Your task to perform on an android device: open app "Firefox Browser" (install if not already installed) Image 0: 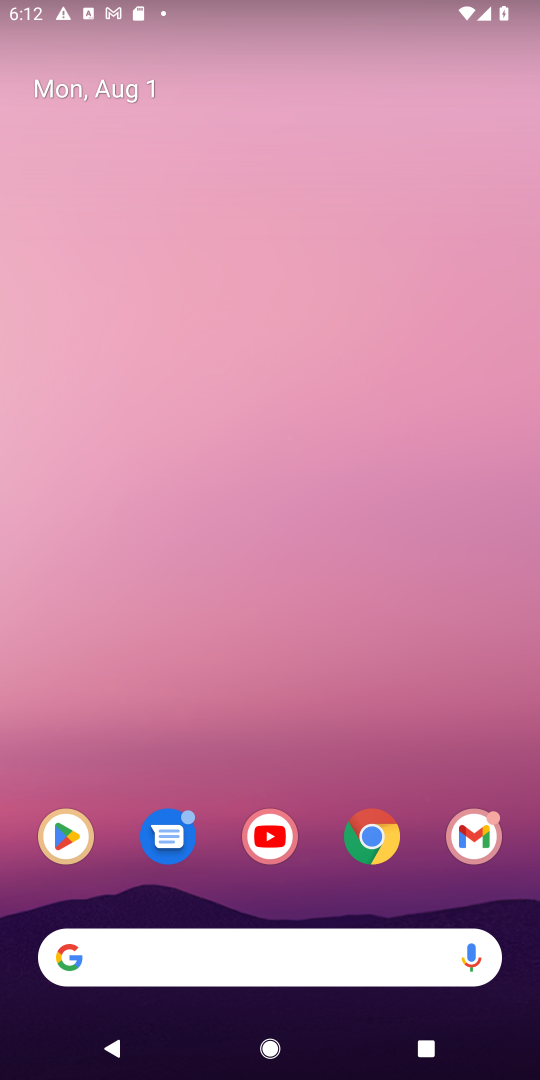
Step 0: press home button
Your task to perform on an android device: open app "Firefox Browser" (install if not already installed) Image 1: 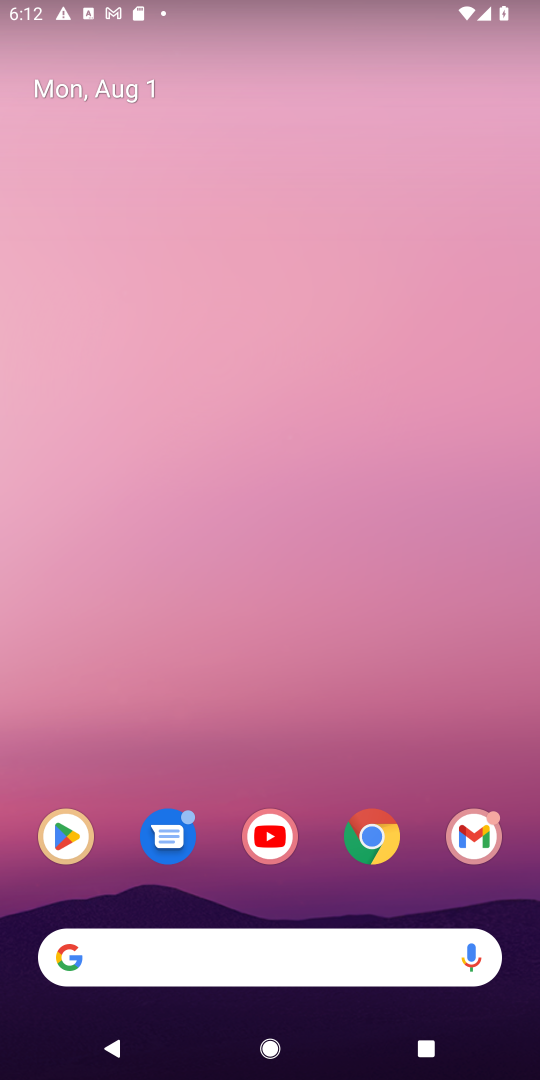
Step 1: click (68, 838)
Your task to perform on an android device: open app "Firefox Browser" (install if not already installed) Image 2: 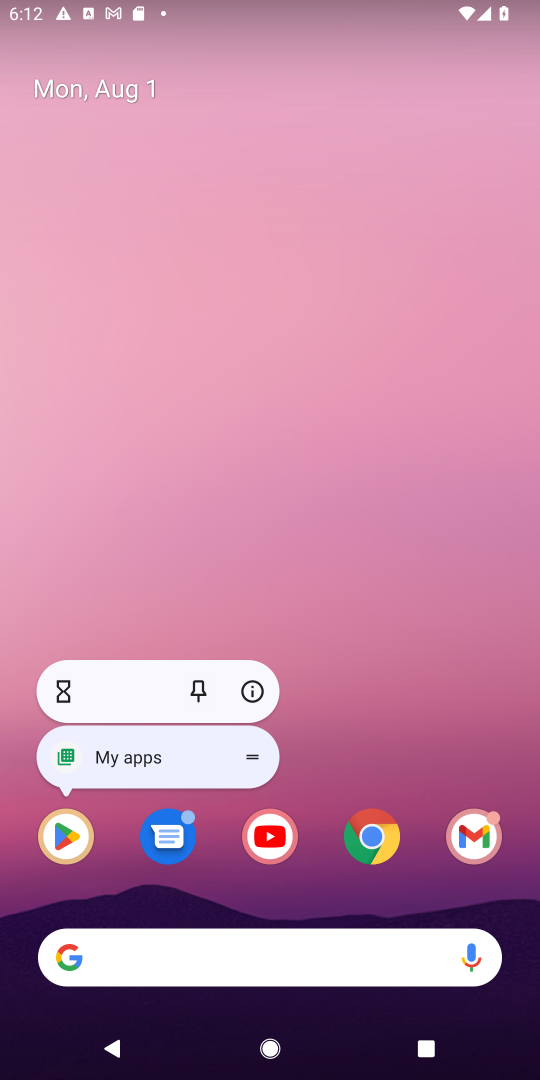
Step 2: click (68, 843)
Your task to perform on an android device: open app "Firefox Browser" (install if not already installed) Image 3: 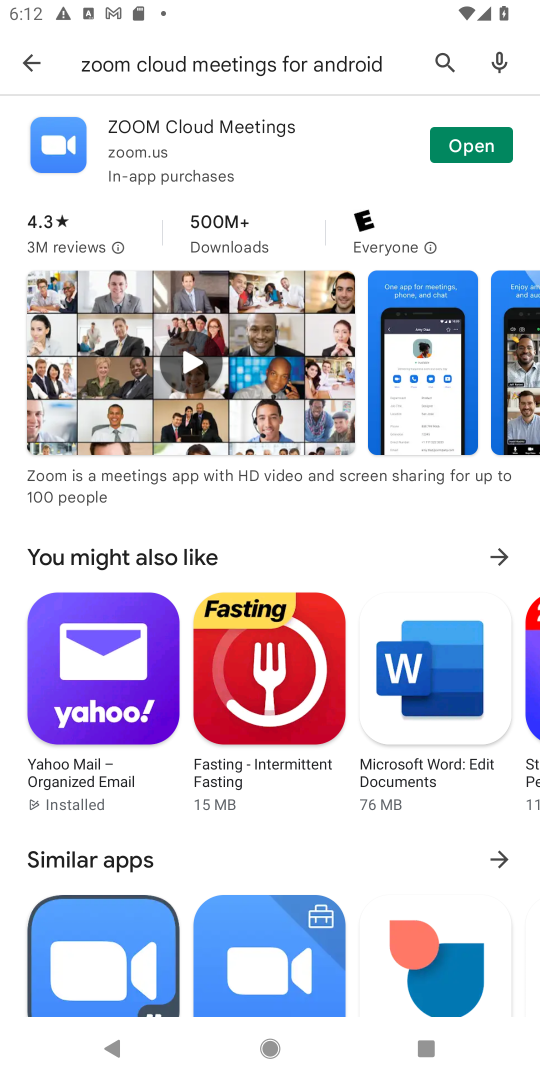
Step 3: click (440, 54)
Your task to perform on an android device: open app "Firefox Browser" (install if not already installed) Image 4: 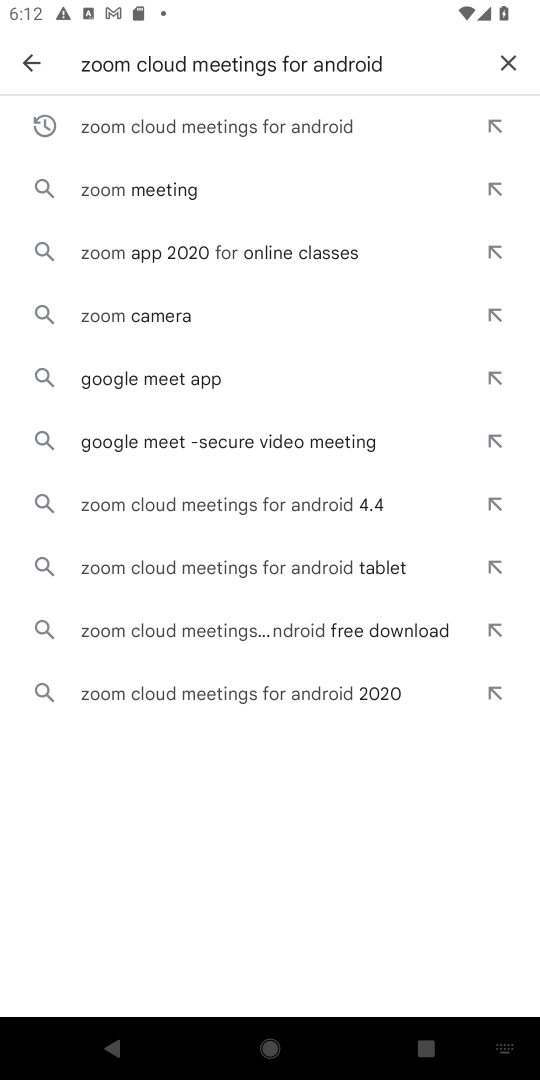
Step 4: click (511, 56)
Your task to perform on an android device: open app "Firefox Browser" (install if not already installed) Image 5: 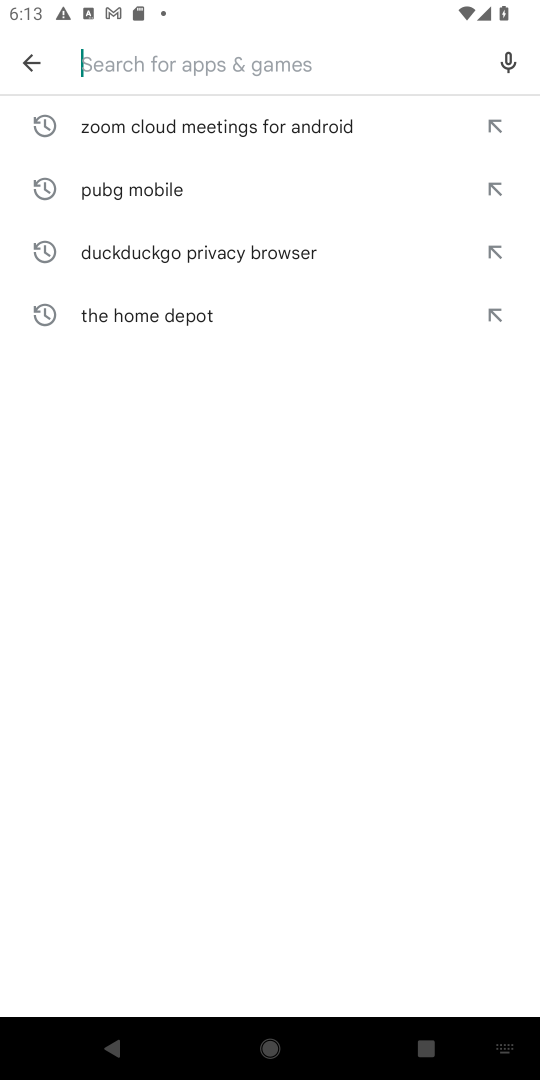
Step 5: type "Firefox Browser"
Your task to perform on an android device: open app "Firefox Browser" (install if not already installed) Image 6: 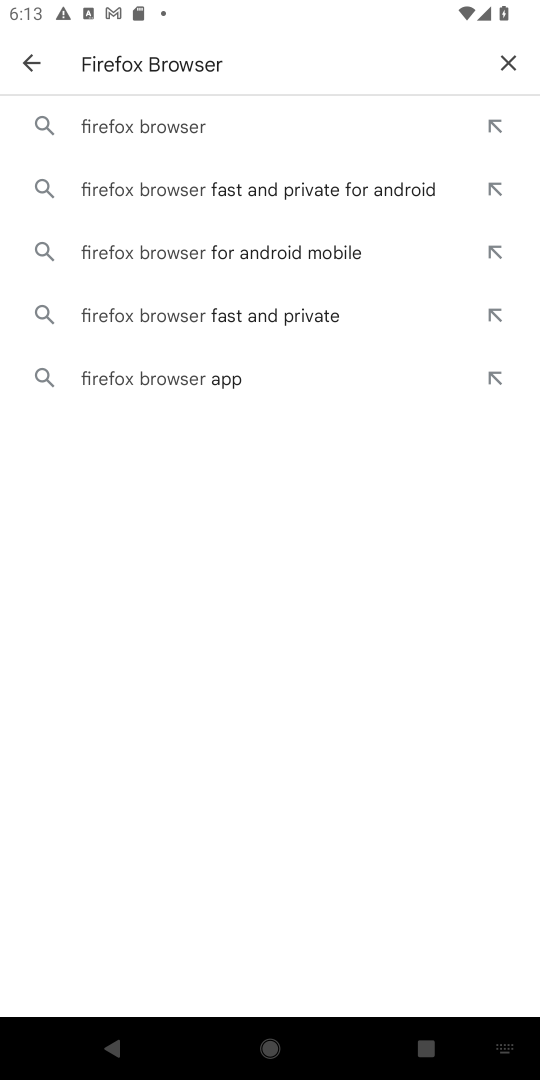
Step 6: click (178, 127)
Your task to perform on an android device: open app "Firefox Browser" (install if not already installed) Image 7: 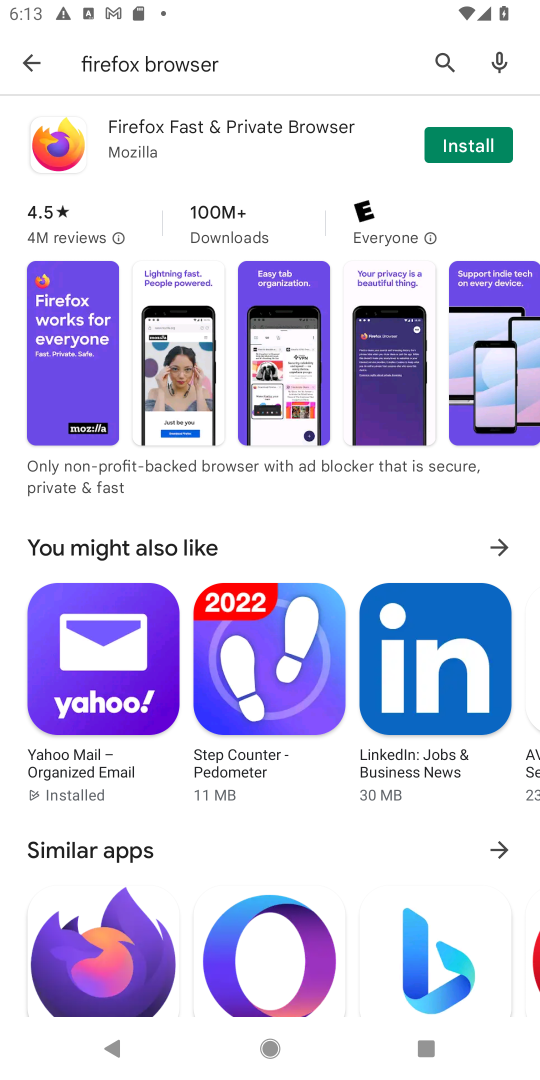
Step 7: click (479, 143)
Your task to perform on an android device: open app "Firefox Browser" (install if not already installed) Image 8: 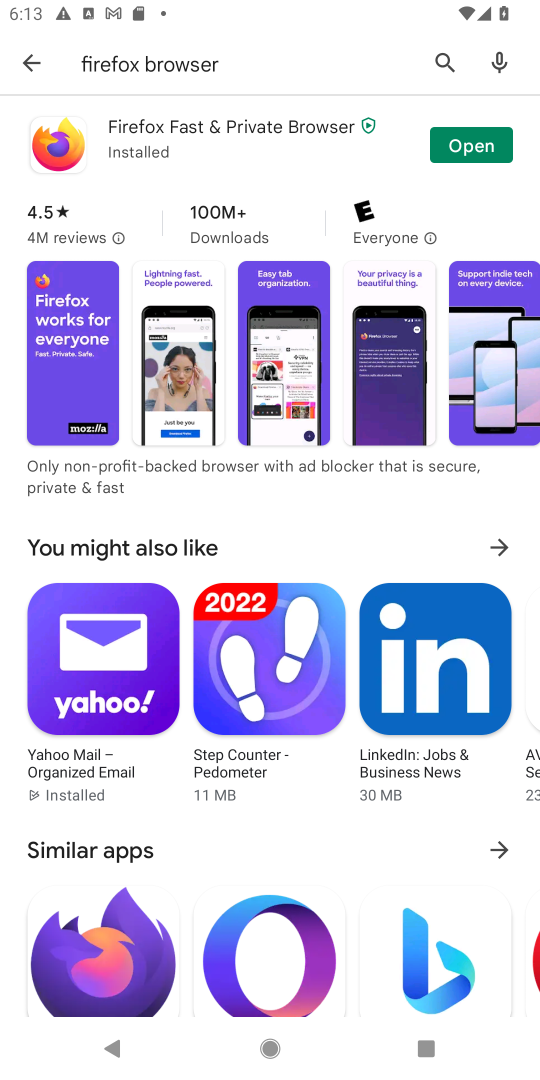
Step 8: click (480, 140)
Your task to perform on an android device: open app "Firefox Browser" (install if not already installed) Image 9: 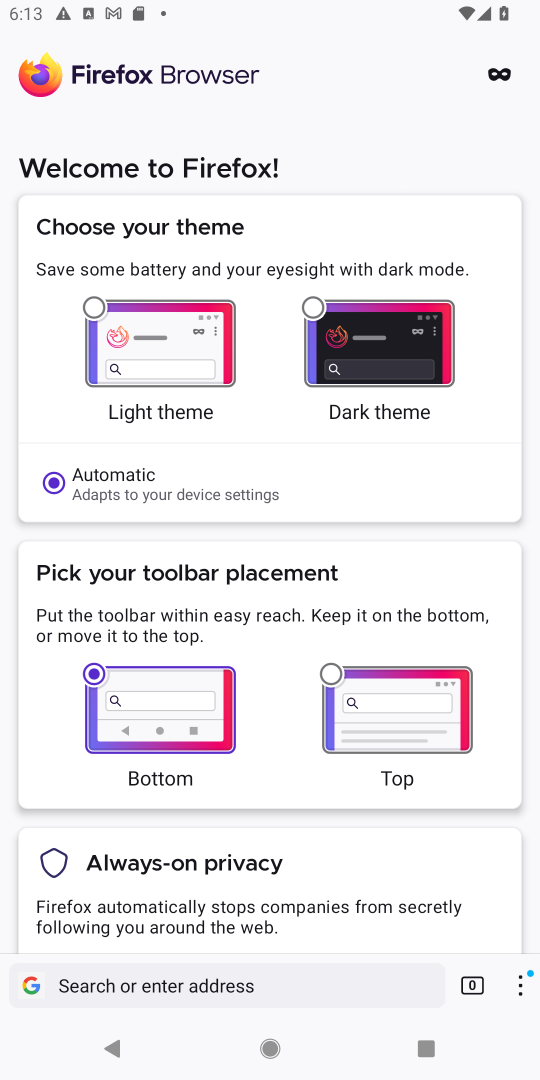
Step 9: task complete